Your task to perform on an android device: Open settings on Google Maps Image 0: 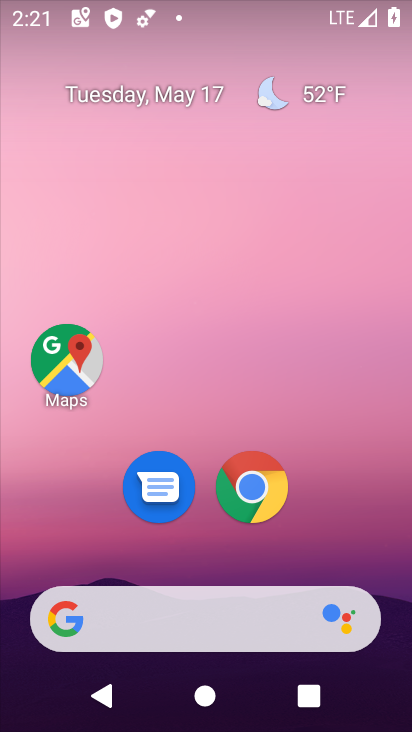
Step 0: click (42, 345)
Your task to perform on an android device: Open settings on Google Maps Image 1: 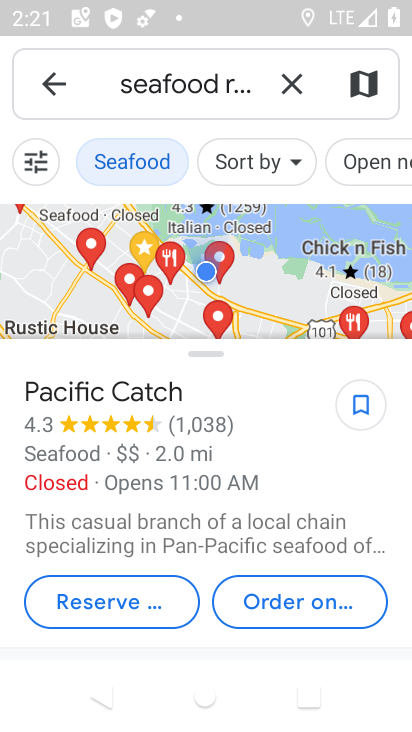
Step 1: click (43, 80)
Your task to perform on an android device: Open settings on Google Maps Image 2: 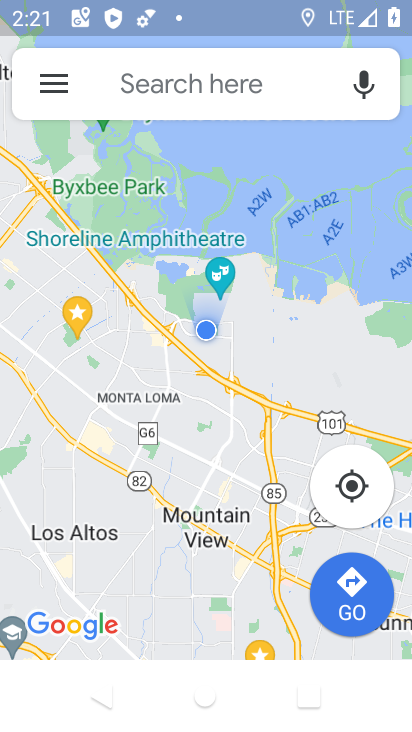
Step 2: task complete